Your task to perform on an android device: Open calendar and show me the first week of next month Image 0: 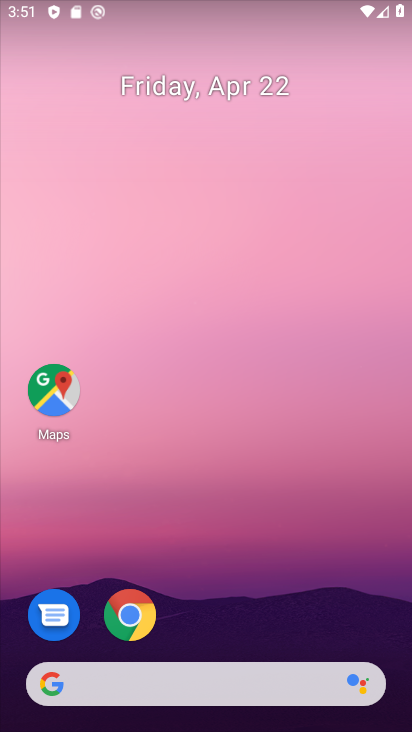
Step 0: press home button
Your task to perform on an android device: Open calendar and show me the first week of next month Image 1: 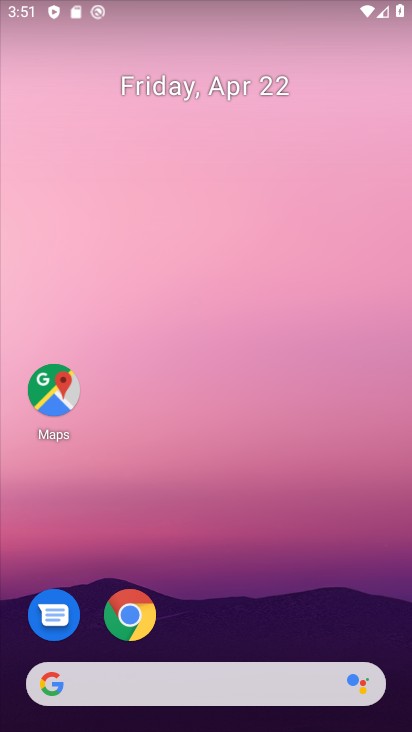
Step 1: drag from (239, 636) to (276, 241)
Your task to perform on an android device: Open calendar and show me the first week of next month Image 2: 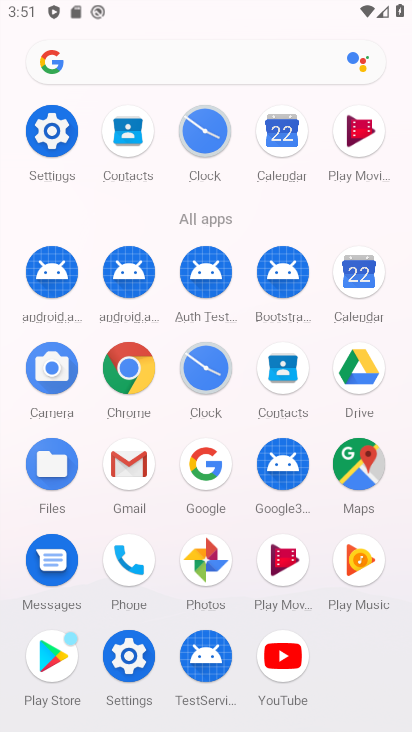
Step 2: click (356, 293)
Your task to perform on an android device: Open calendar and show me the first week of next month Image 3: 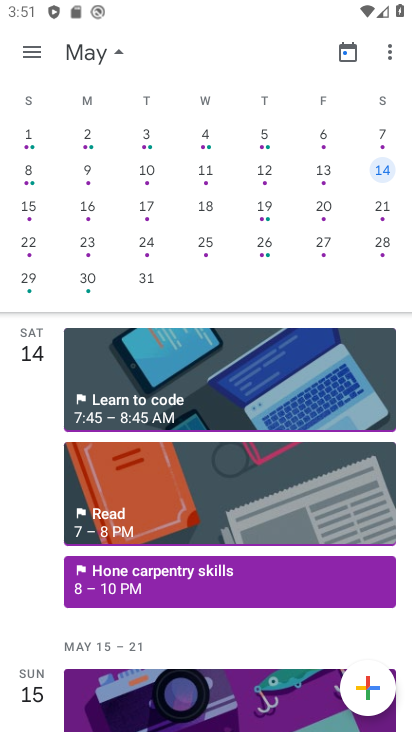
Step 3: click (29, 142)
Your task to perform on an android device: Open calendar and show me the first week of next month Image 4: 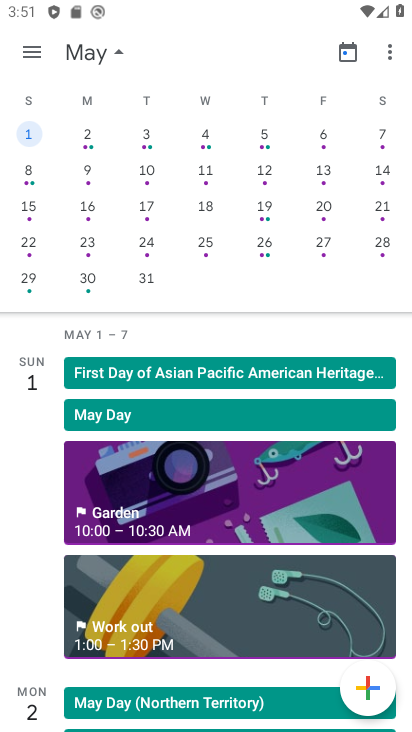
Step 4: click (86, 147)
Your task to perform on an android device: Open calendar and show me the first week of next month Image 5: 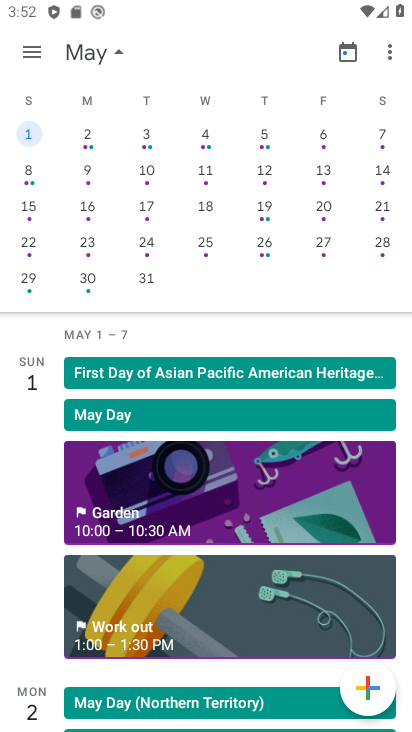
Step 5: click (150, 149)
Your task to perform on an android device: Open calendar and show me the first week of next month Image 6: 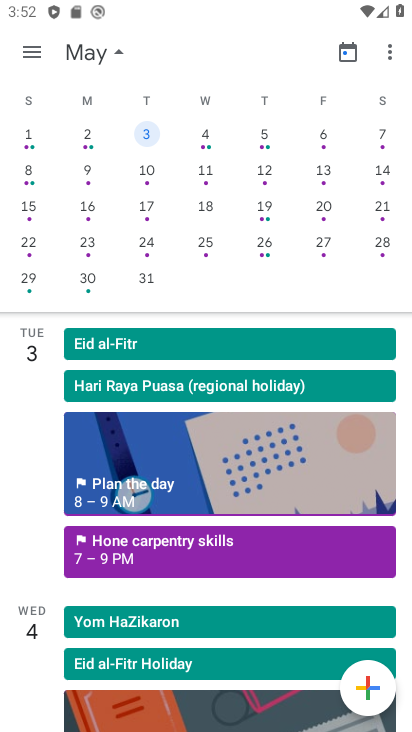
Step 6: click (211, 149)
Your task to perform on an android device: Open calendar and show me the first week of next month Image 7: 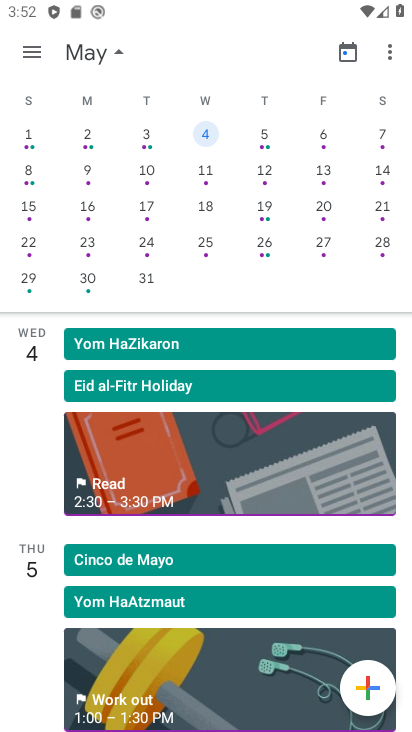
Step 7: click (313, 147)
Your task to perform on an android device: Open calendar and show me the first week of next month Image 8: 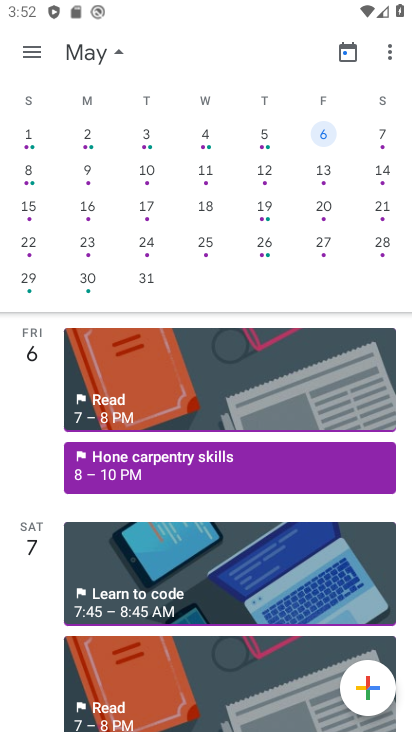
Step 8: click (388, 143)
Your task to perform on an android device: Open calendar and show me the first week of next month Image 9: 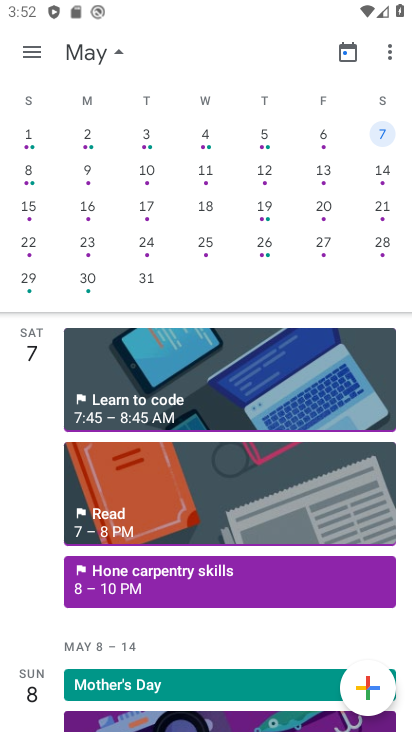
Step 9: task complete